Your task to perform on an android device: Open the Play Movies app and select the watchlist tab. Image 0: 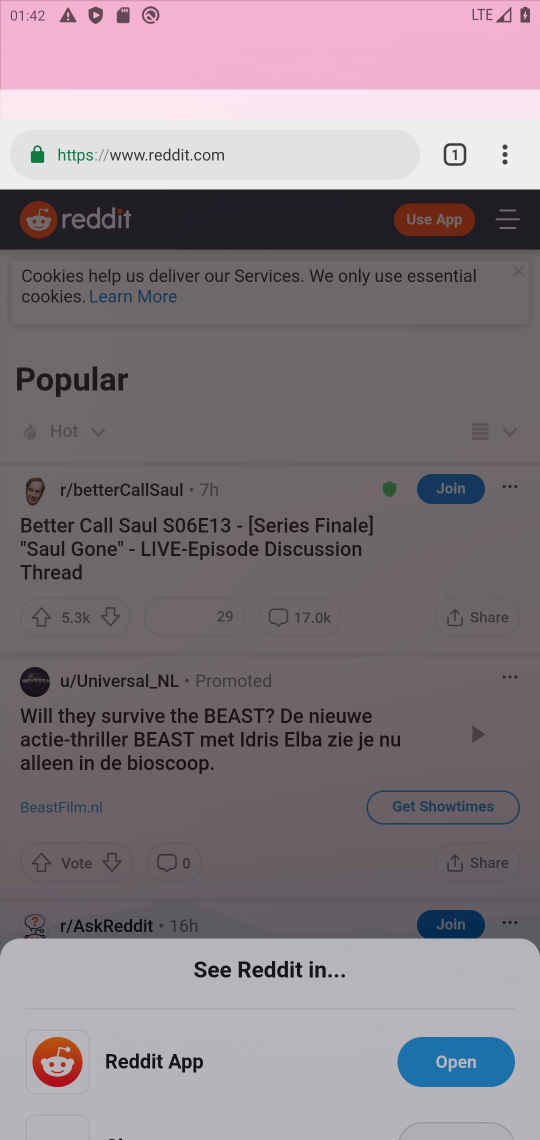
Step 0: press home button
Your task to perform on an android device: Open the Play Movies app and select the watchlist tab. Image 1: 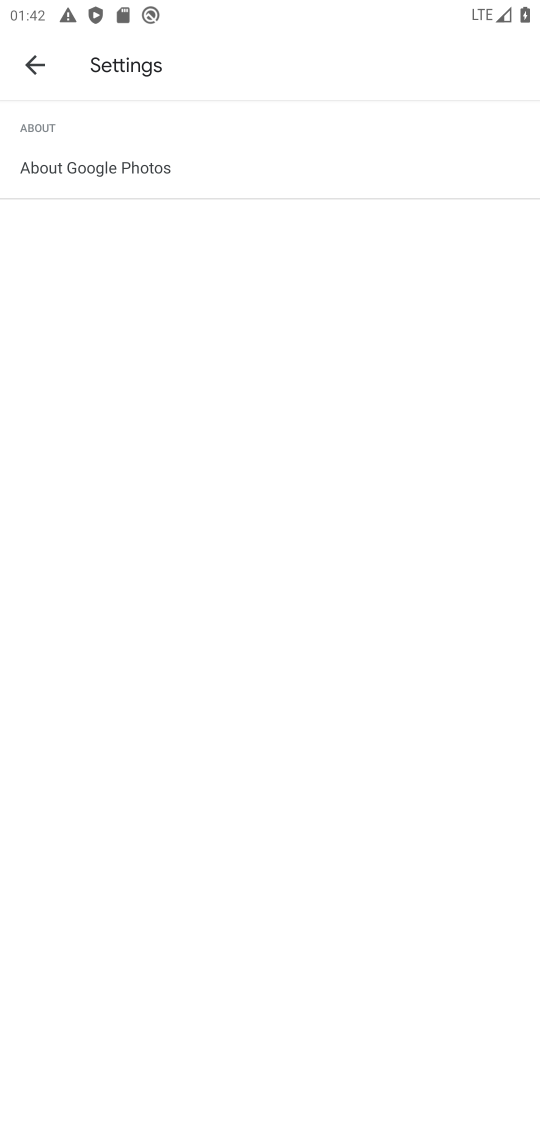
Step 1: press home button
Your task to perform on an android device: Open the Play Movies app and select the watchlist tab. Image 2: 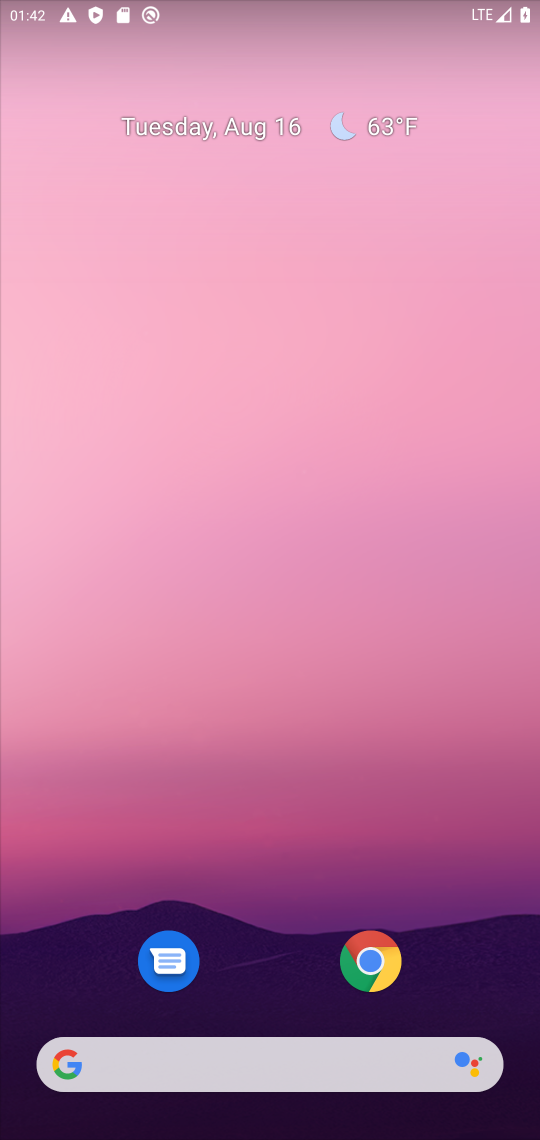
Step 2: press home button
Your task to perform on an android device: Open the Play Movies app and select the watchlist tab. Image 3: 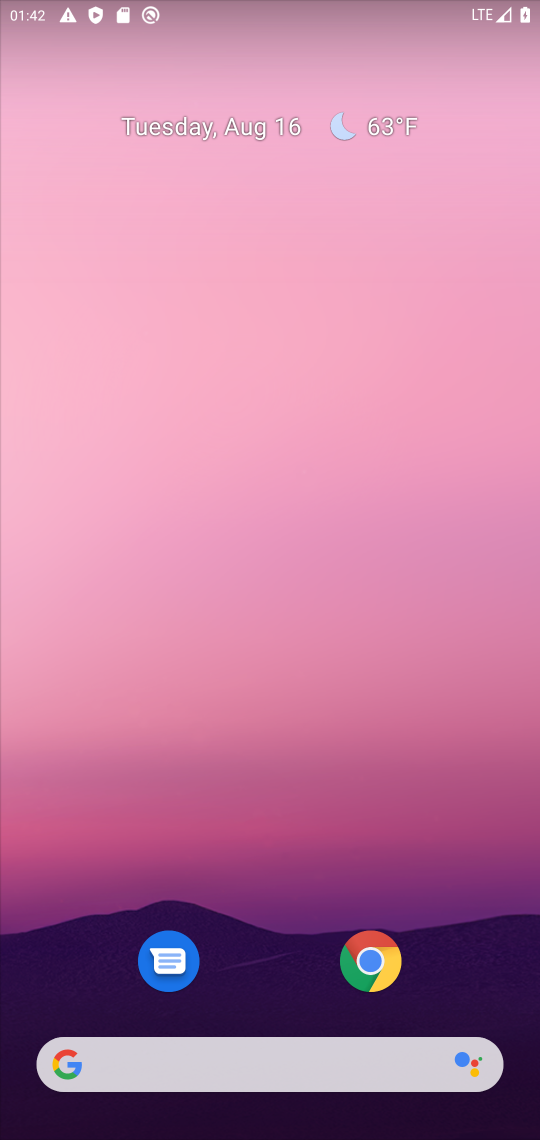
Step 3: drag from (241, 1033) to (282, 2)
Your task to perform on an android device: Open the Play Movies app and select the watchlist tab. Image 4: 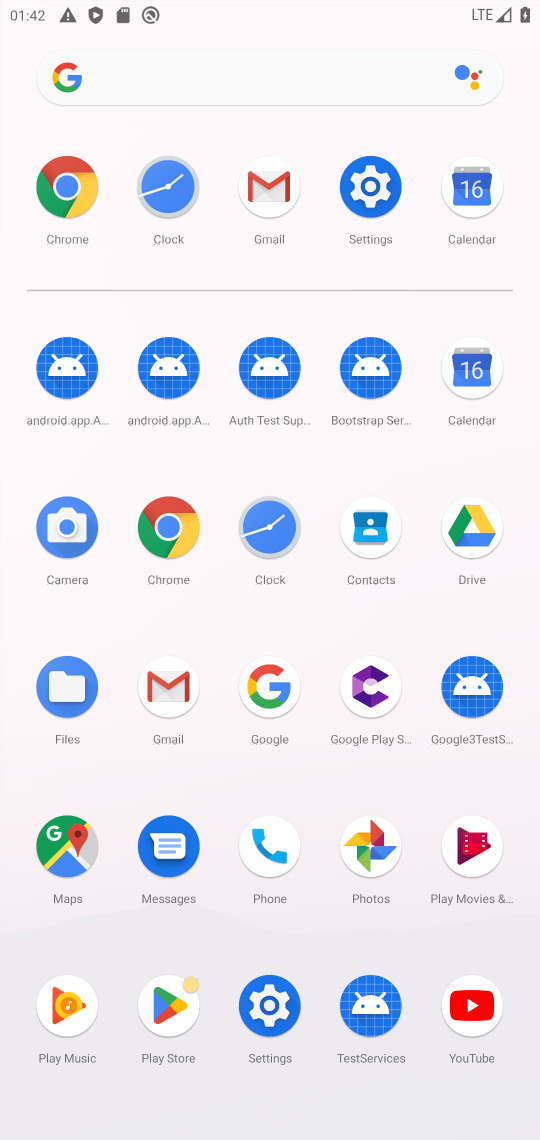
Step 4: click (481, 829)
Your task to perform on an android device: Open the Play Movies app and select the watchlist tab. Image 5: 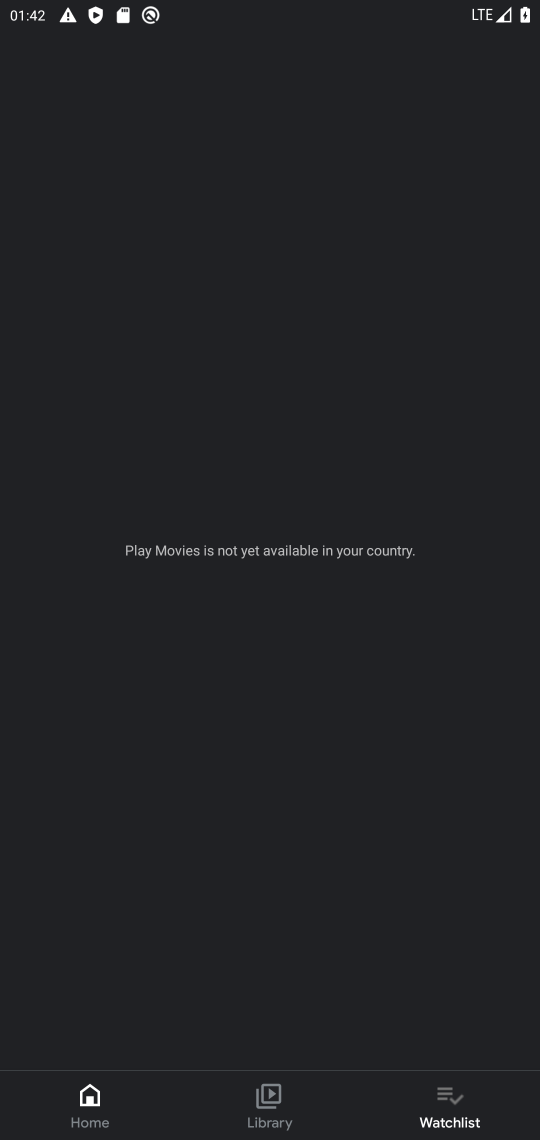
Step 5: click (422, 1092)
Your task to perform on an android device: Open the Play Movies app and select the watchlist tab. Image 6: 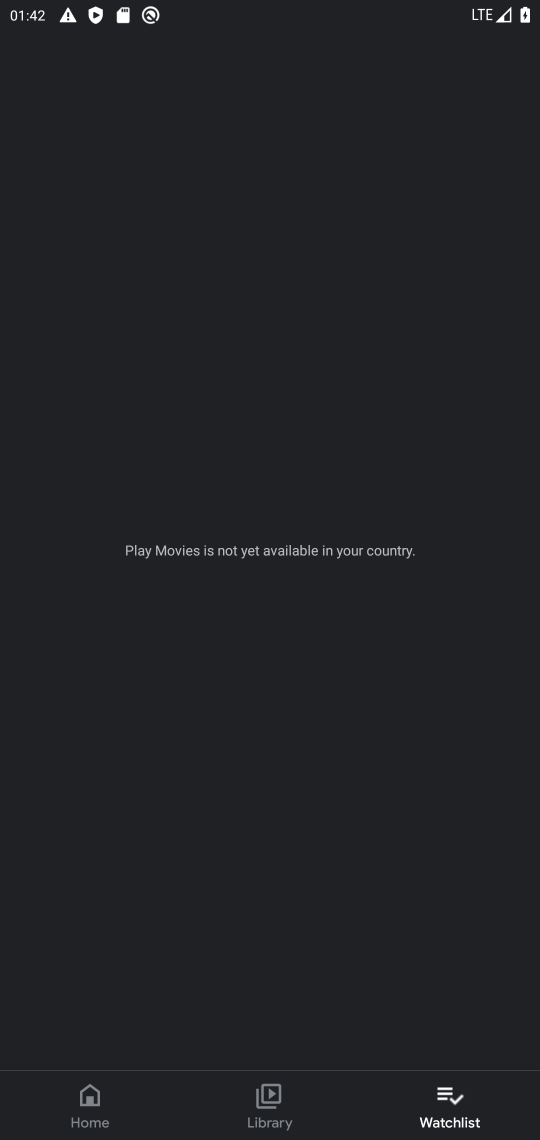
Step 6: task complete